Your task to perform on an android device: What is the recent news? Image 0: 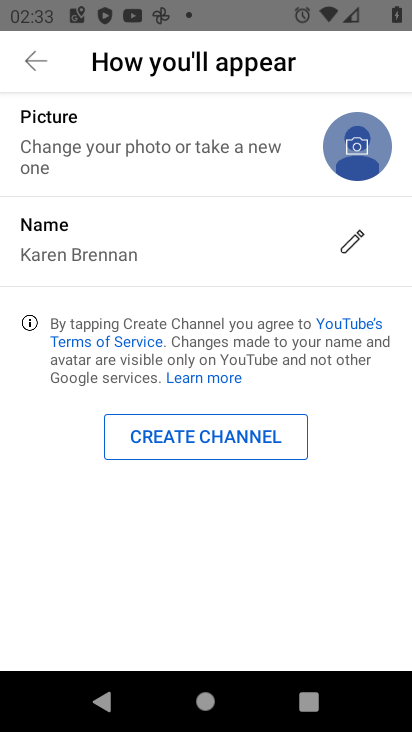
Step 0: press home button
Your task to perform on an android device: What is the recent news? Image 1: 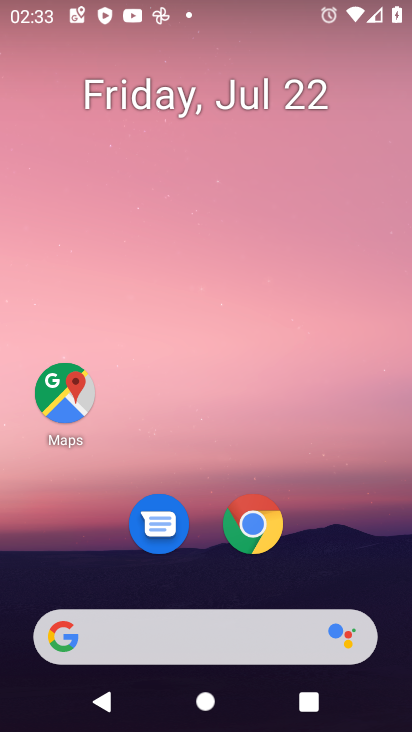
Step 1: click (153, 642)
Your task to perform on an android device: What is the recent news? Image 2: 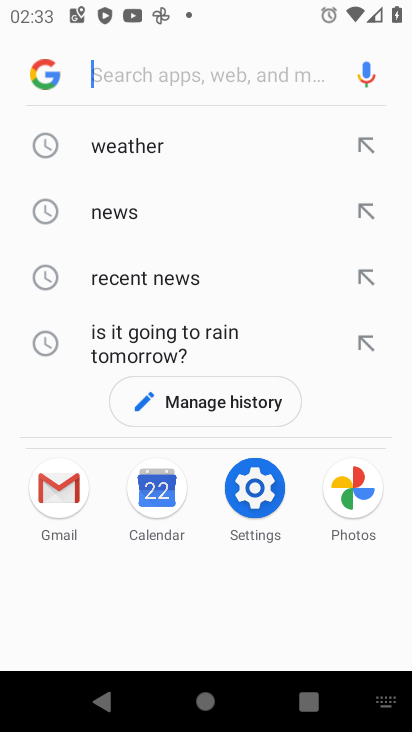
Step 2: click (148, 275)
Your task to perform on an android device: What is the recent news? Image 3: 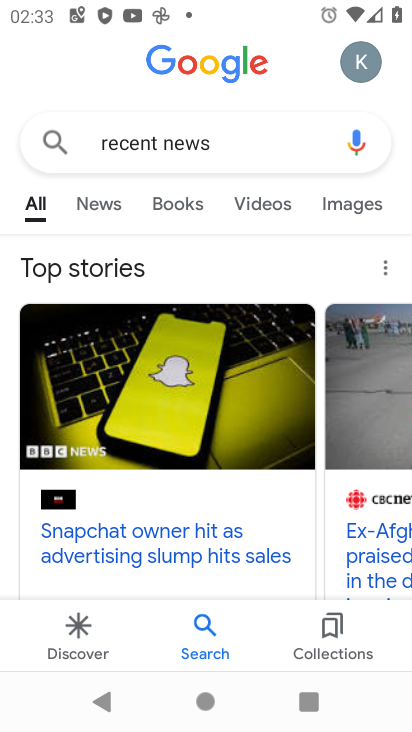
Step 3: click (107, 206)
Your task to perform on an android device: What is the recent news? Image 4: 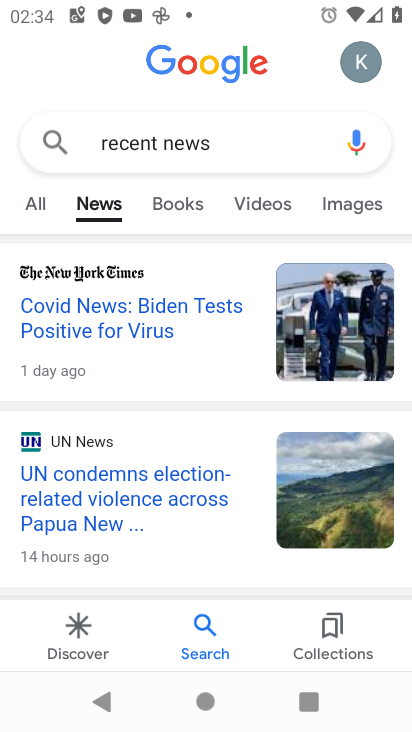
Step 4: task complete